Your task to perform on an android device: Go to display settings Image 0: 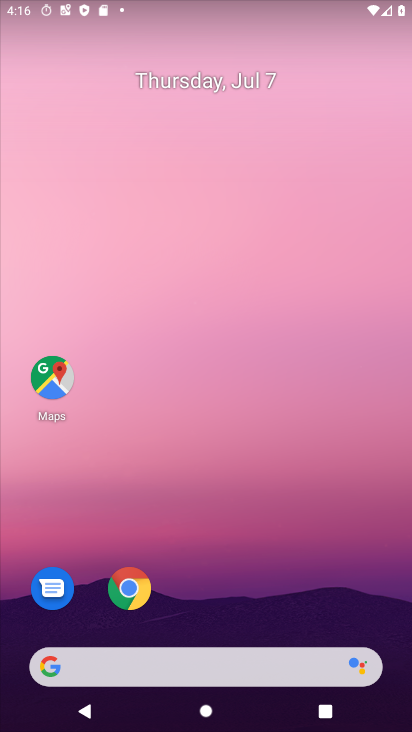
Step 0: press home button
Your task to perform on an android device: Go to display settings Image 1: 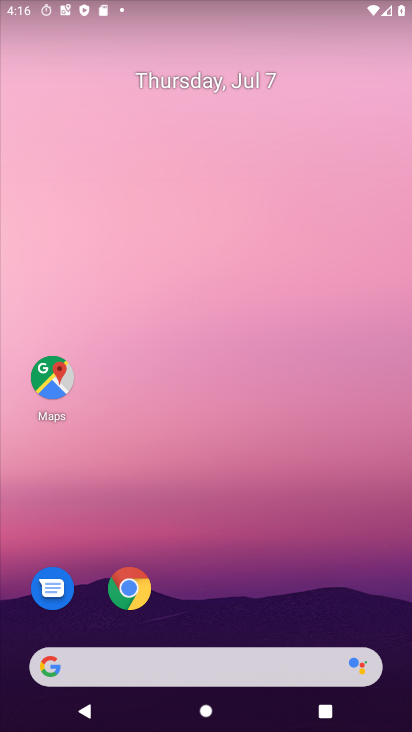
Step 1: drag from (259, 644) to (254, 151)
Your task to perform on an android device: Go to display settings Image 2: 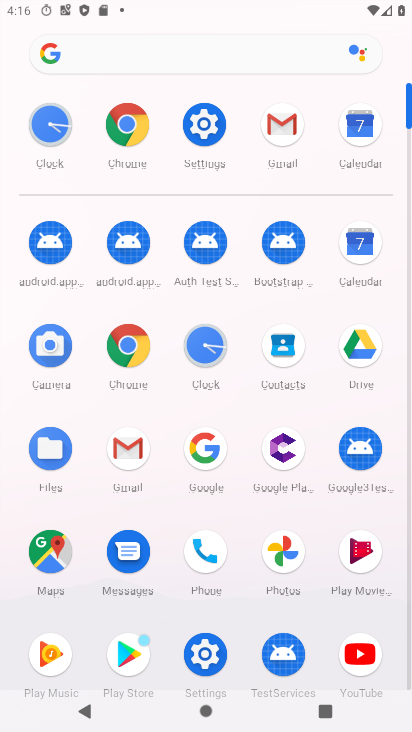
Step 2: click (216, 126)
Your task to perform on an android device: Go to display settings Image 3: 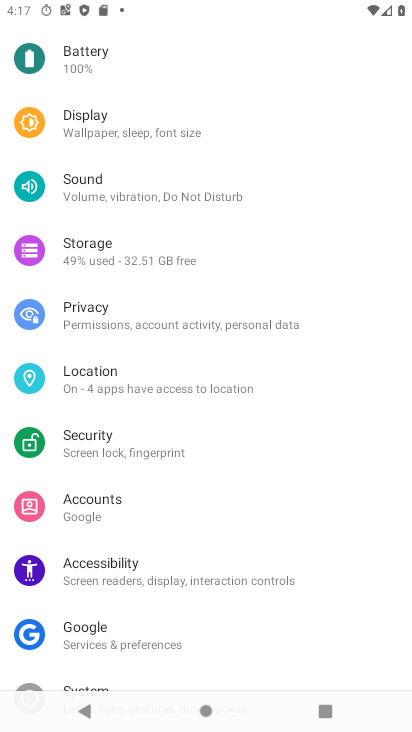
Step 3: click (71, 133)
Your task to perform on an android device: Go to display settings Image 4: 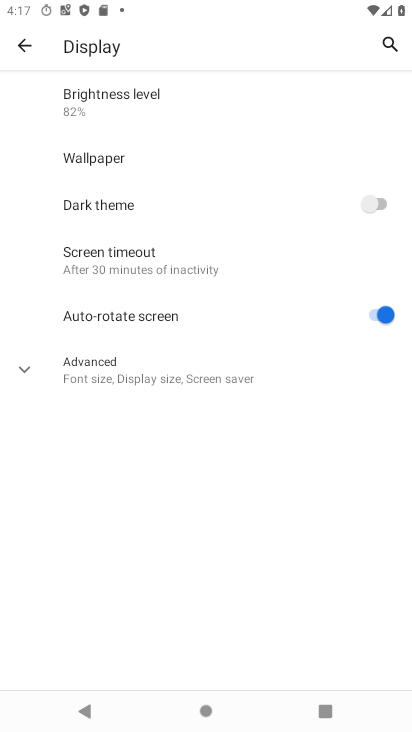
Step 4: task complete